Your task to perform on an android device: Open the map Image 0: 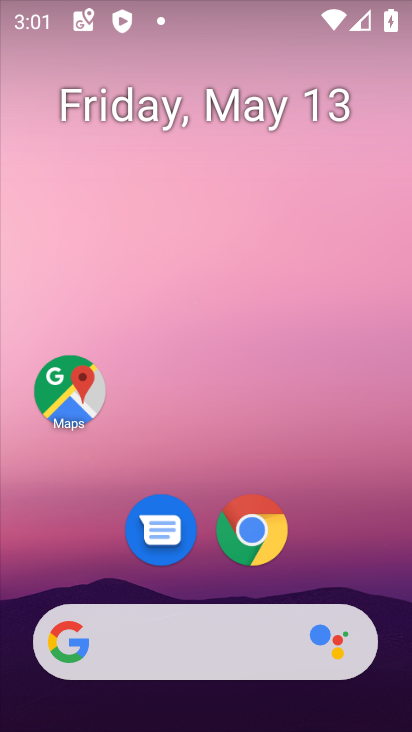
Step 0: click (44, 385)
Your task to perform on an android device: Open the map Image 1: 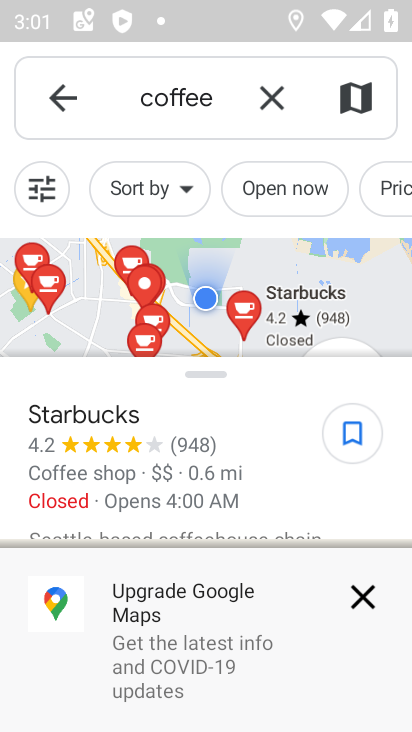
Step 1: task complete